Your task to perform on an android device: turn off location Image 0: 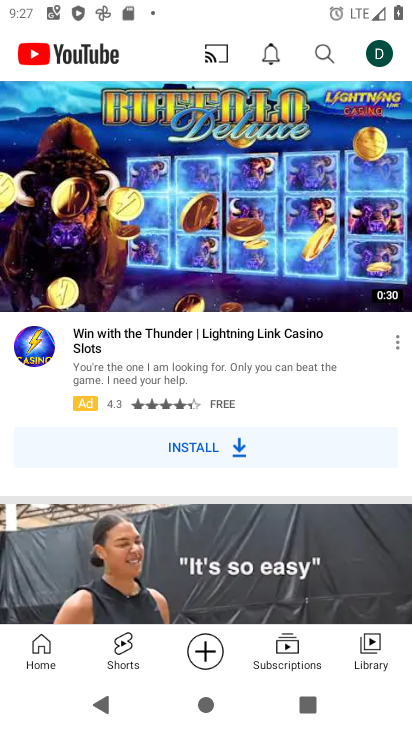
Step 0: press home button
Your task to perform on an android device: turn off location Image 1: 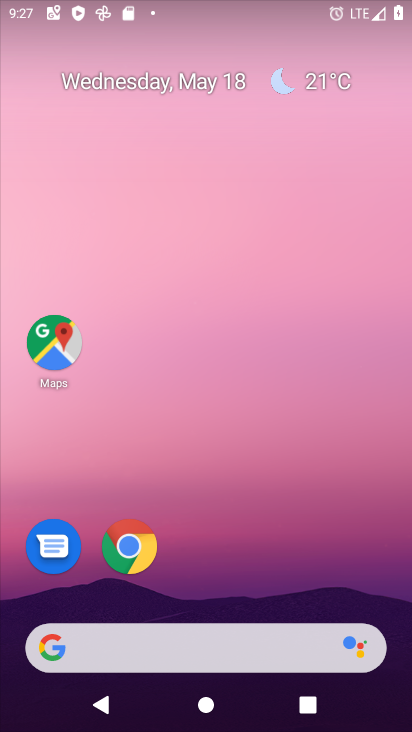
Step 1: drag from (390, 641) to (290, 72)
Your task to perform on an android device: turn off location Image 2: 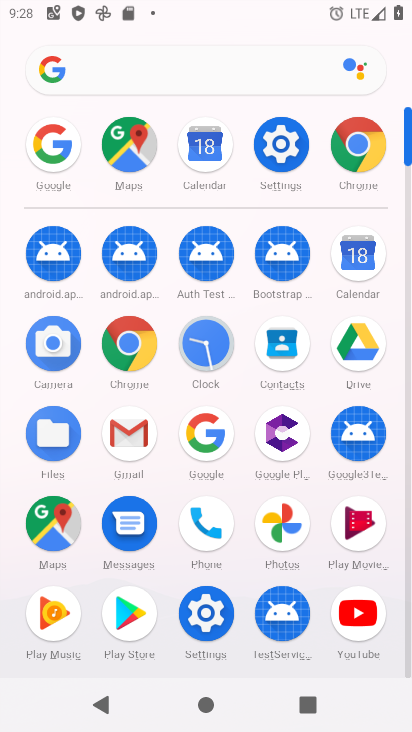
Step 2: click (208, 598)
Your task to perform on an android device: turn off location Image 3: 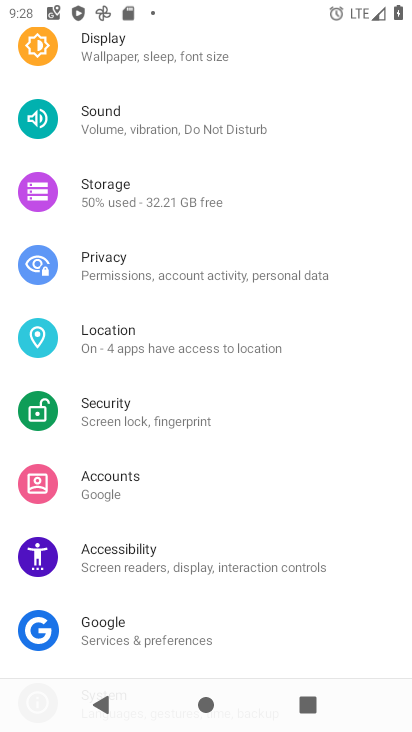
Step 3: click (131, 352)
Your task to perform on an android device: turn off location Image 4: 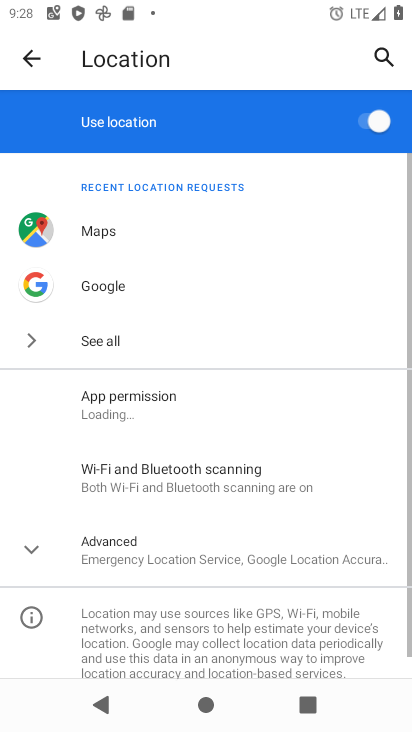
Step 4: click (347, 121)
Your task to perform on an android device: turn off location Image 5: 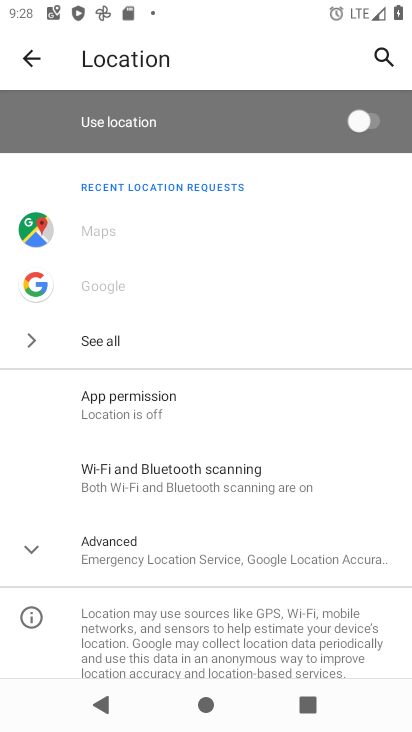
Step 5: task complete